Your task to perform on an android device: see creations saved in the google photos Image 0: 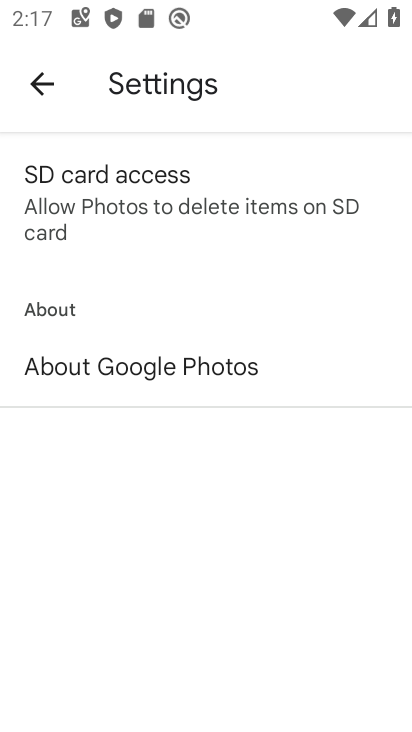
Step 0: press home button
Your task to perform on an android device: see creations saved in the google photos Image 1: 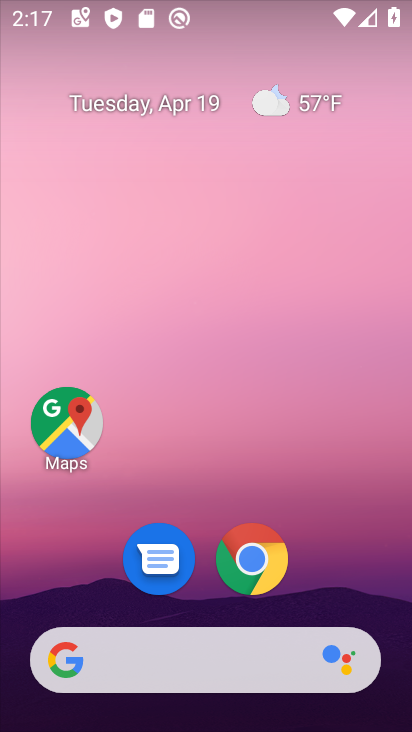
Step 1: drag from (207, 605) to (173, 116)
Your task to perform on an android device: see creations saved in the google photos Image 2: 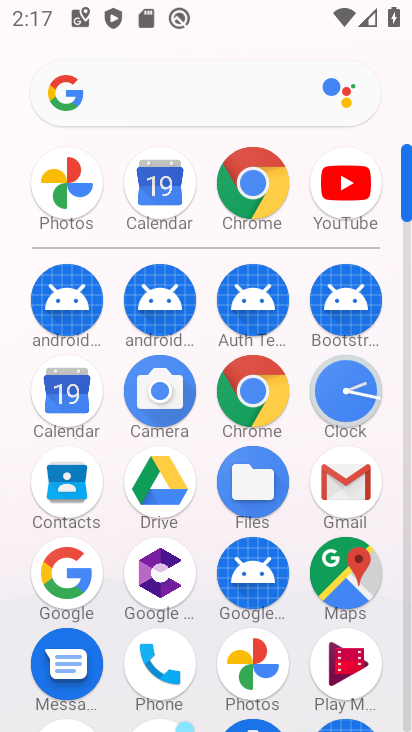
Step 2: click (256, 655)
Your task to perform on an android device: see creations saved in the google photos Image 3: 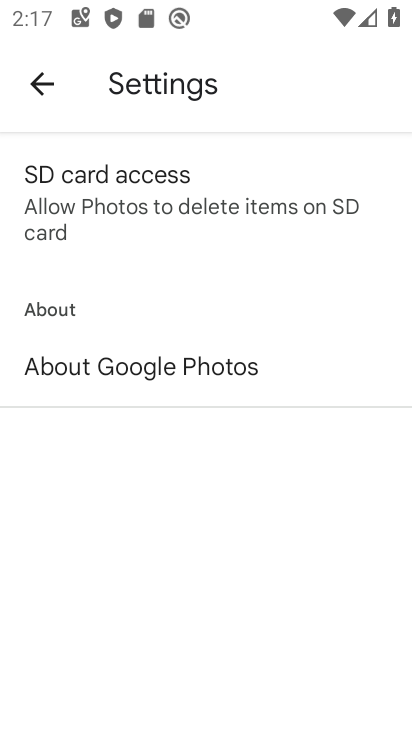
Step 3: click (48, 88)
Your task to perform on an android device: see creations saved in the google photos Image 4: 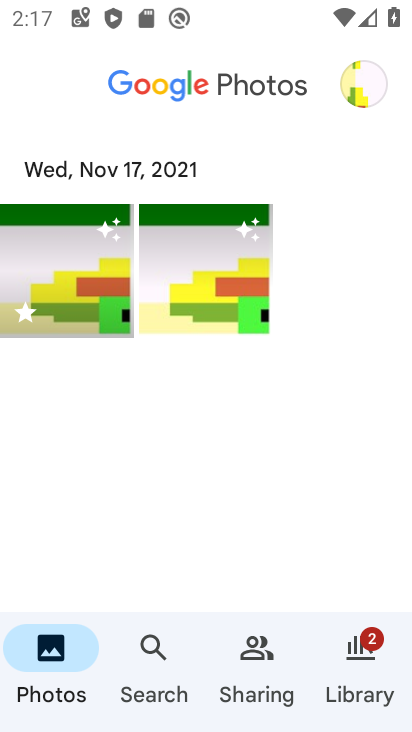
Step 4: click (150, 651)
Your task to perform on an android device: see creations saved in the google photos Image 5: 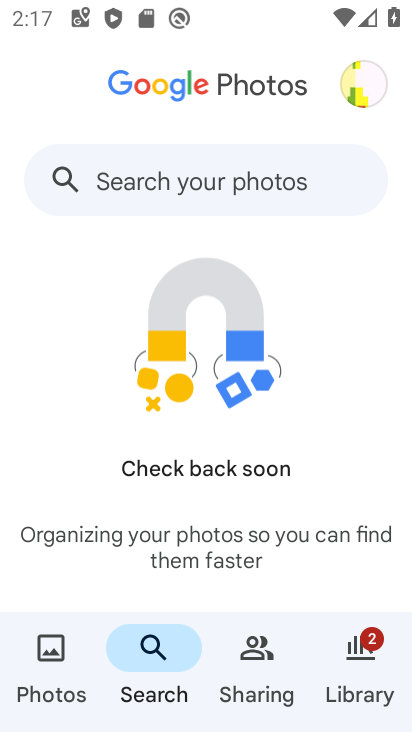
Step 5: click (154, 179)
Your task to perform on an android device: see creations saved in the google photos Image 6: 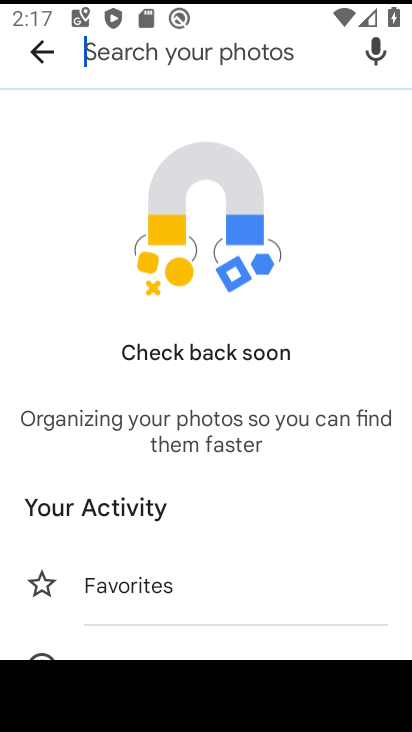
Step 6: drag from (195, 617) to (191, 139)
Your task to perform on an android device: see creations saved in the google photos Image 7: 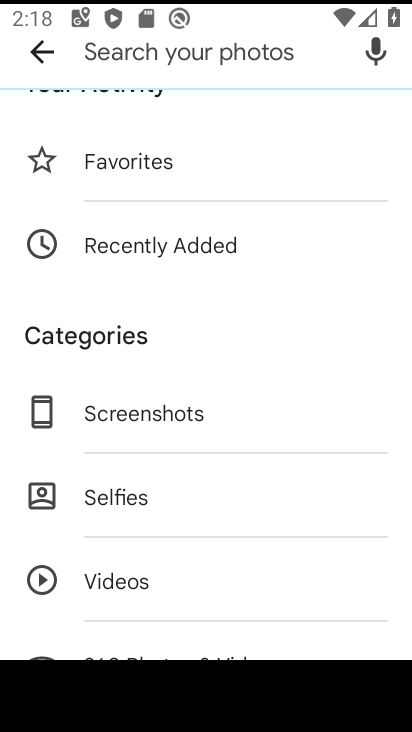
Step 7: drag from (176, 590) to (164, 204)
Your task to perform on an android device: see creations saved in the google photos Image 8: 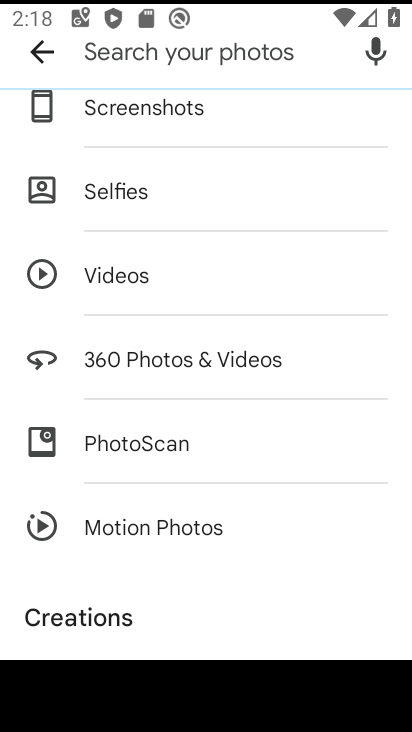
Step 8: drag from (201, 590) to (199, 149)
Your task to perform on an android device: see creations saved in the google photos Image 9: 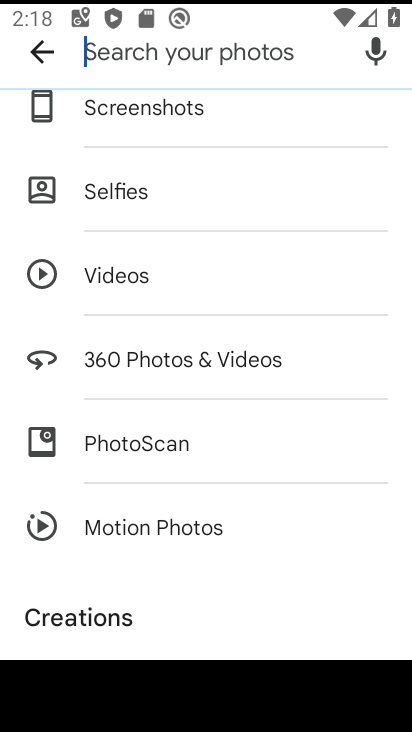
Step 9: drag from (151, 591) to (165, 190)
Your task to perform on an android device: see creations saved in the google photos Image 10: 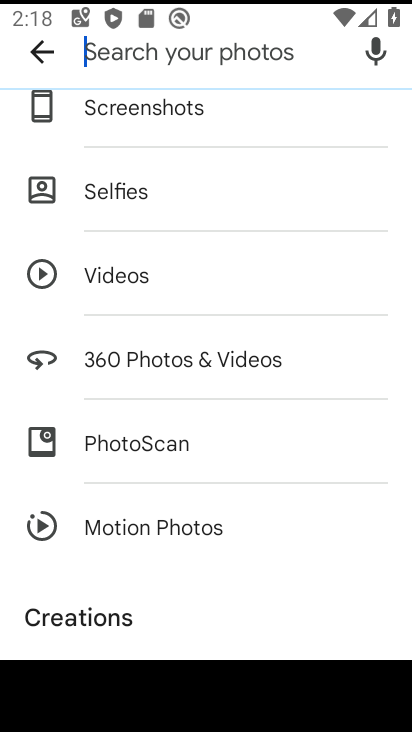
Step 10: drag from (158, 610) to (154, 222)
Your task to perform on an android device: see creations saved in the google photos Image 11: 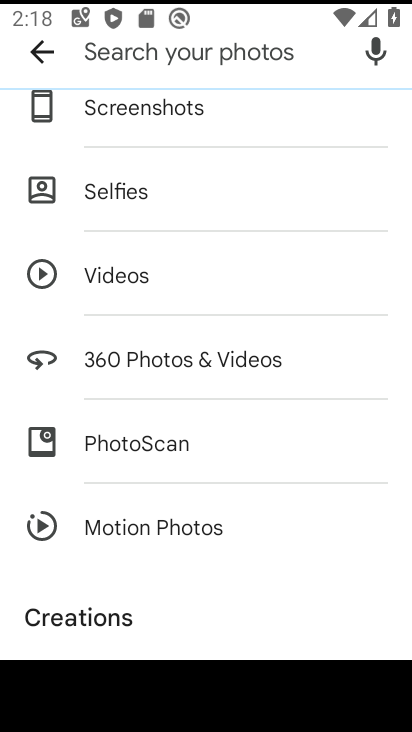
Step 11: drag from (182, 568) to (183, 183)
Your task to perform on an android device: see creations saved in the google photos Image 12: 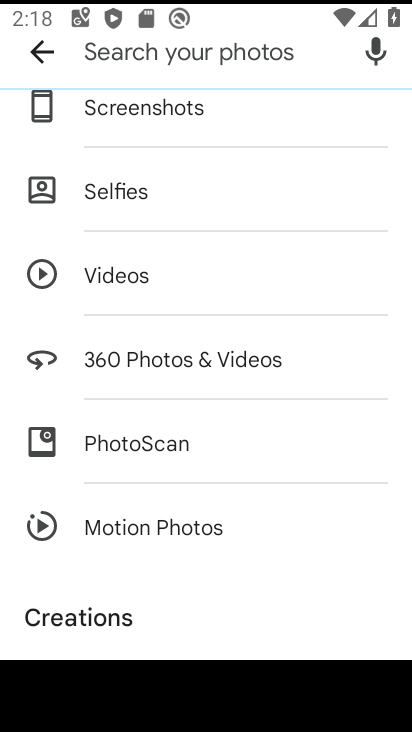
Step 12: drag from (193, 311) to (221, 10)
Your task to perform on an android device: see creations saved in the google photos Image 13: 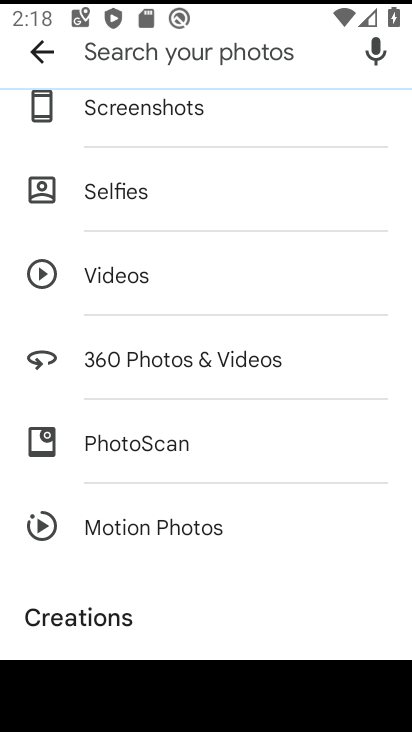
Step 13: drag from (193, 144) to (194, 79)
Your task to perform on an android device: see creations saved in the google photos Image 14: 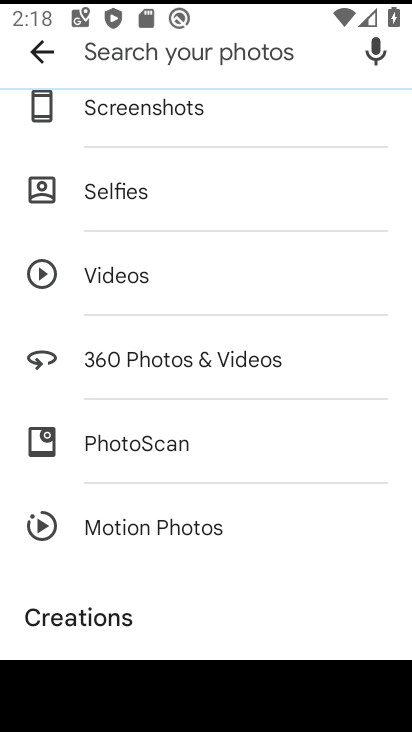
Step 14: click (127, 46)
Your task to perform on an android device: see creations saved in the google photos Image 15: 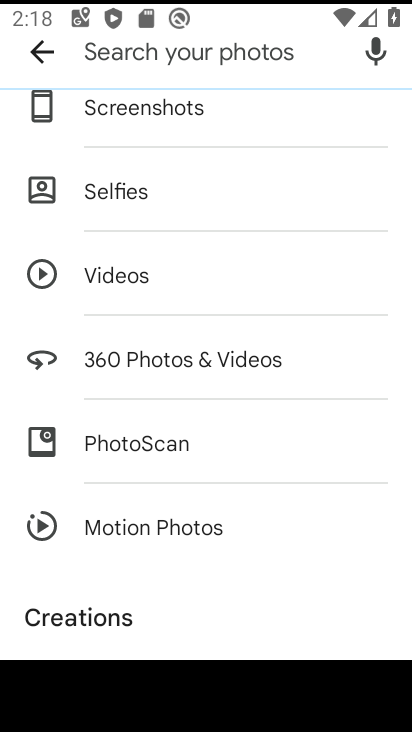
Step 15: type "creation"
Your task to perform on an android device: see creations saved in the google photos Image 16: 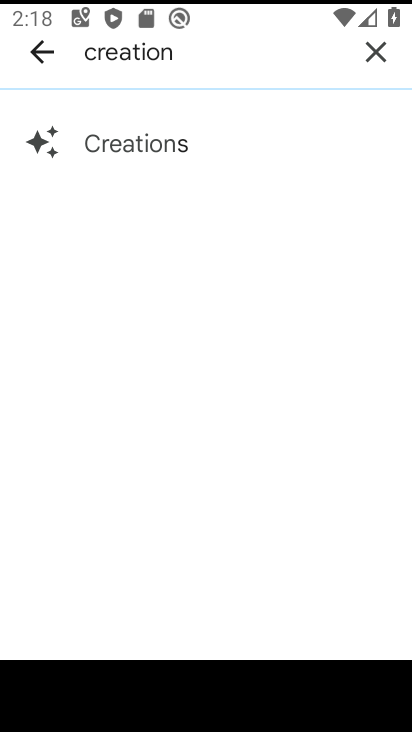
Step 16: click (138, 145)
Your task to perform on an android device: see creations saved in the google photos Image 17: 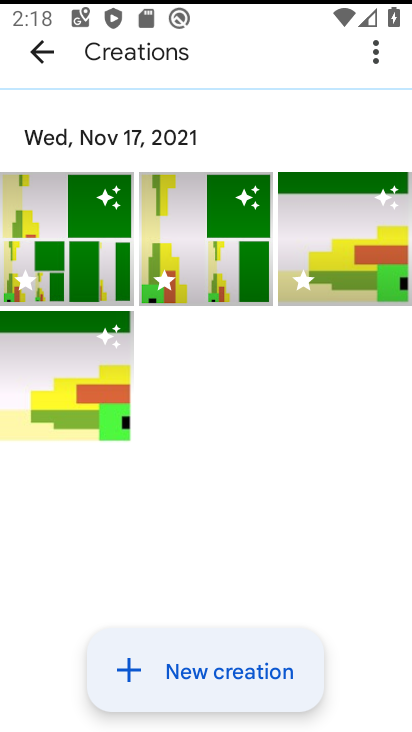
Step 17: task complete